Your task to perform on an android device: add a contact Image 0: 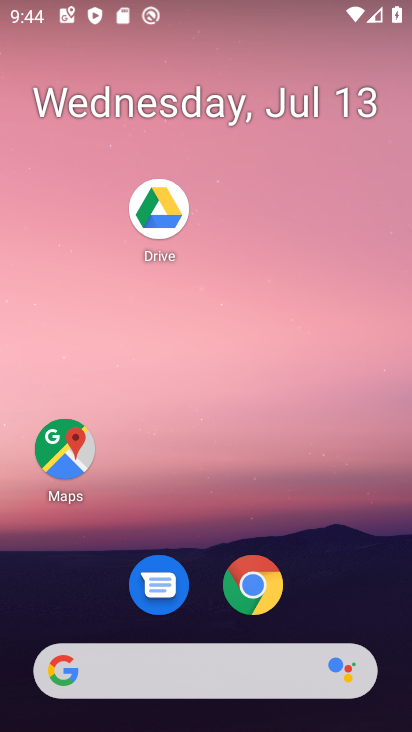
Step 0: drag from (238, 399) to (311, 71)
Your task to perform on an android device: add a contact Image 1: 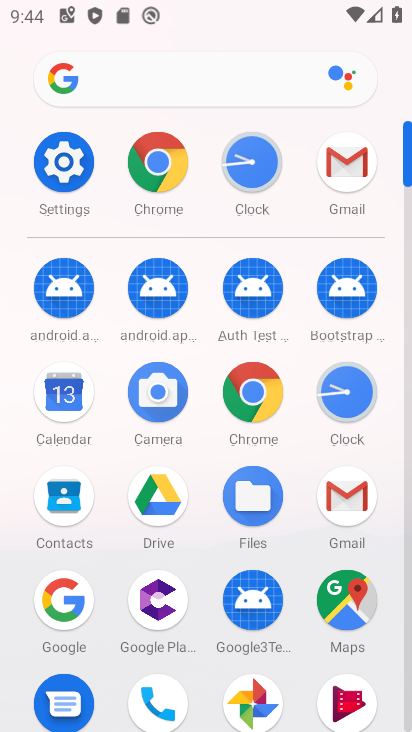
Step 1: click (72, 497)
Your task to perform on an android device: add a contact Image 2: 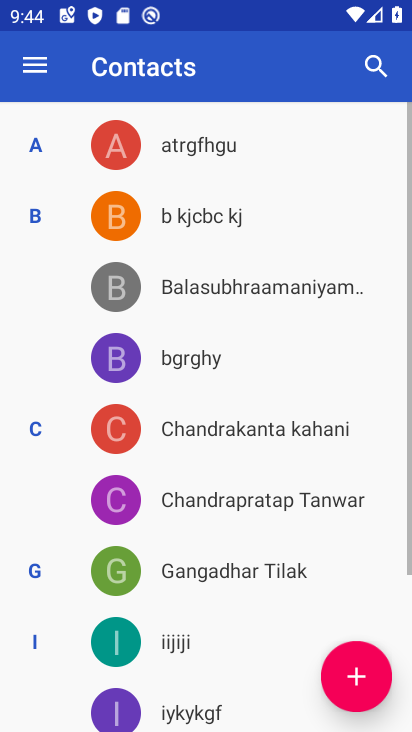
Step 2: click (353, 669)
Your task to perform on an android device: add a contact Image 3: 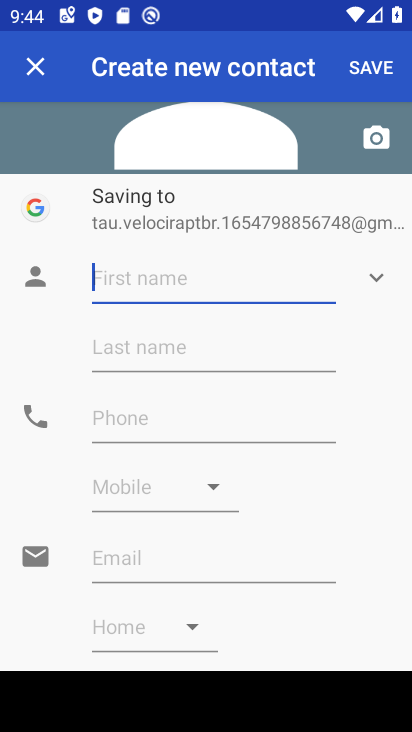
Step 3: type "oijjhyjk"
Your task to perform on an android device: add a contact Image 4: 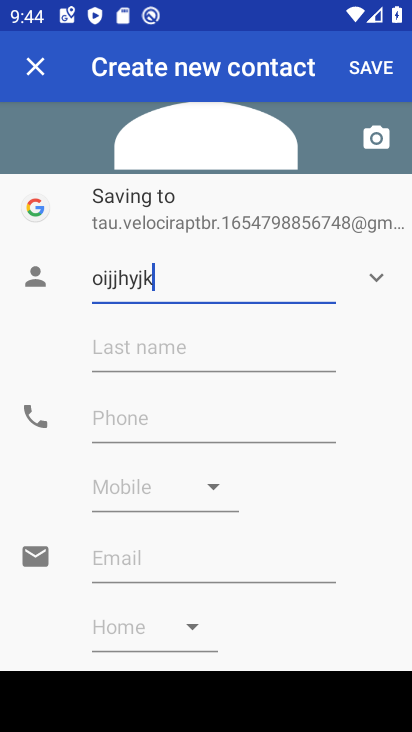
Step 4: click (105, 408)
Your task to perform on an android device: add a contact Image 5: 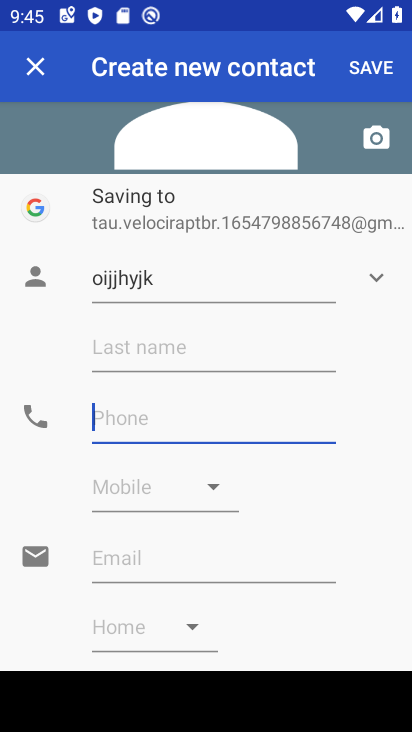
Step 5: type "342654766"
Your task to perform on an android device: add a contact Image 6: 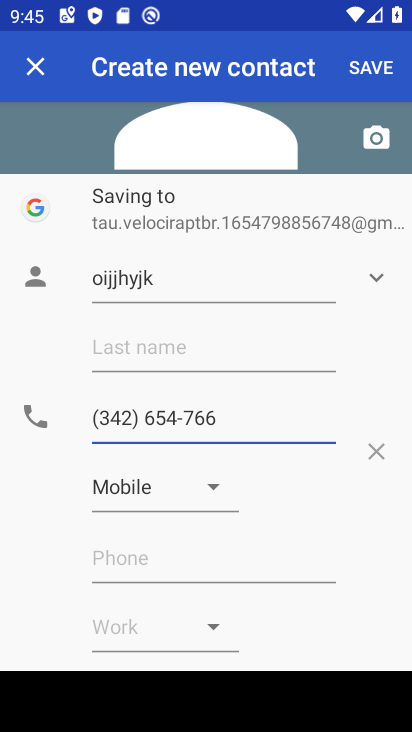
Step 6: click (381, 73)
Your task to perform on an android device: add a contact Image 7: 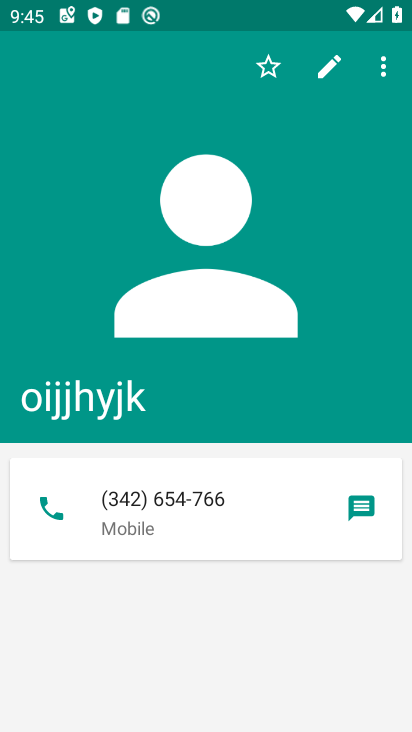
Step 7: task complete